Your task to perform on an android device: Open my contact list Image 0: 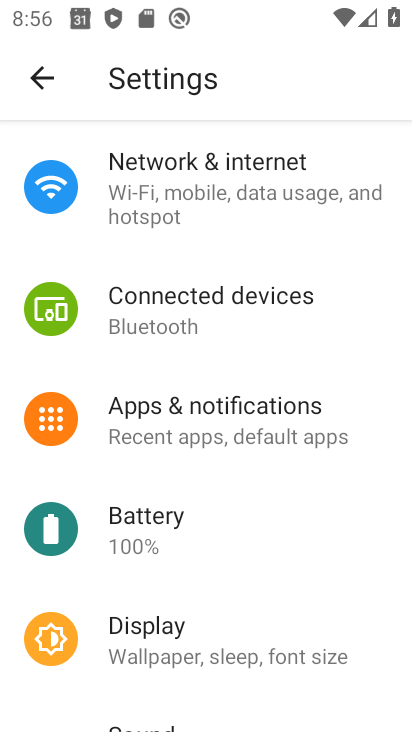
Step 0: press back button
Your task to perform on an android device: Open my contact list Image 1: 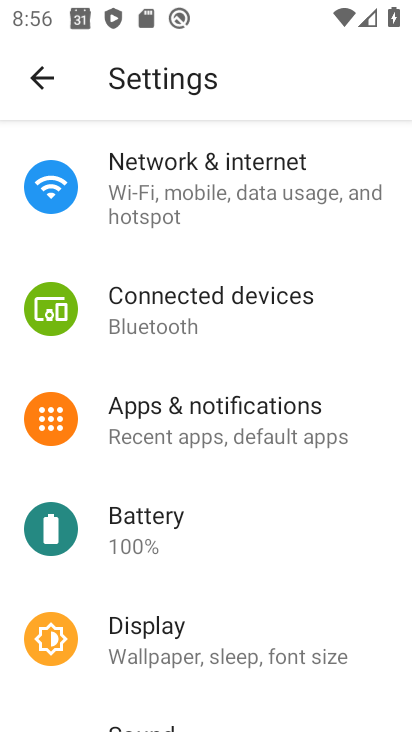
Step 1: press back button
Your task to perform on an android device: Open my contact list Image 2: 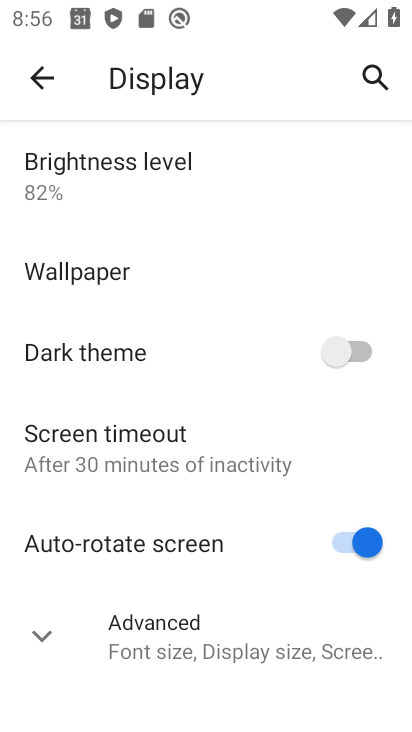
Step 2: press back button
Your task to perform on an android device: Open my contact list Image 3: 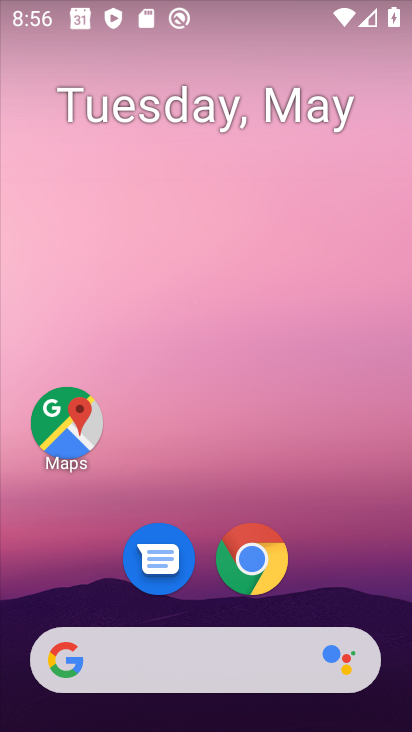
Step 3: drag from (352, 617) to (113, 92)
Your task to perform on an android device: Open my contact list Image 4: 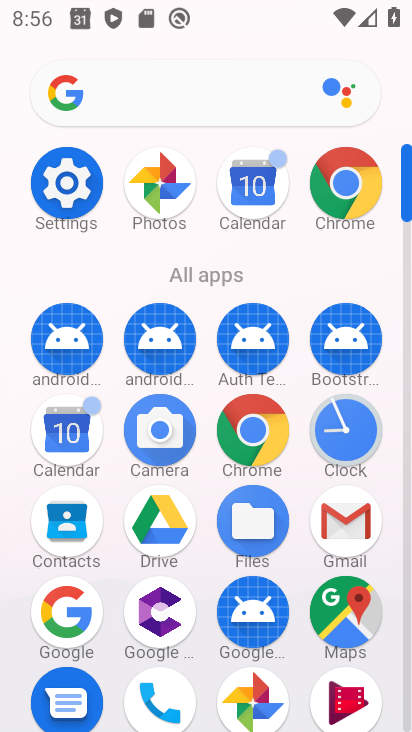
Step 4: click (68, 518)
Your task to perform on an android device: Open my contact list Image 5: 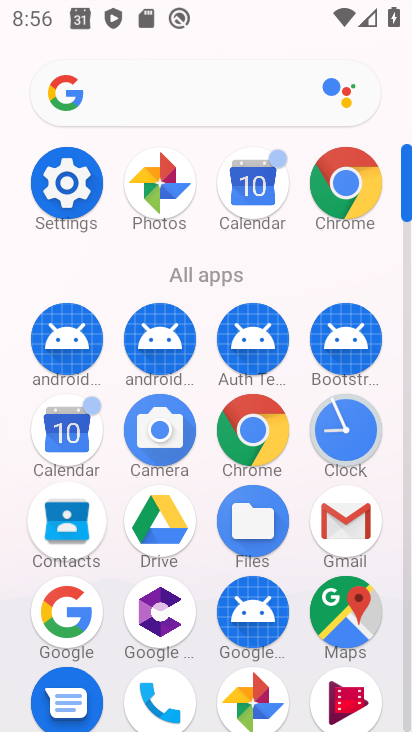
Step 5: click (68, 520)
Your task to perform on an android device: Open my contact list Image 6: 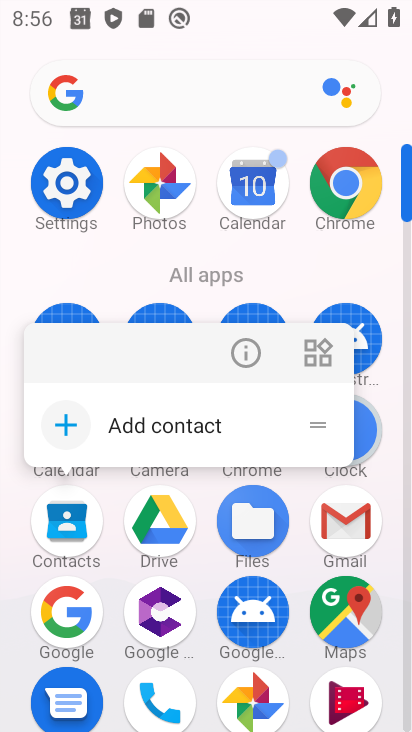
Step 6: click (61, 529)
Your task to perform on an android device: Open my contact list Image 7: 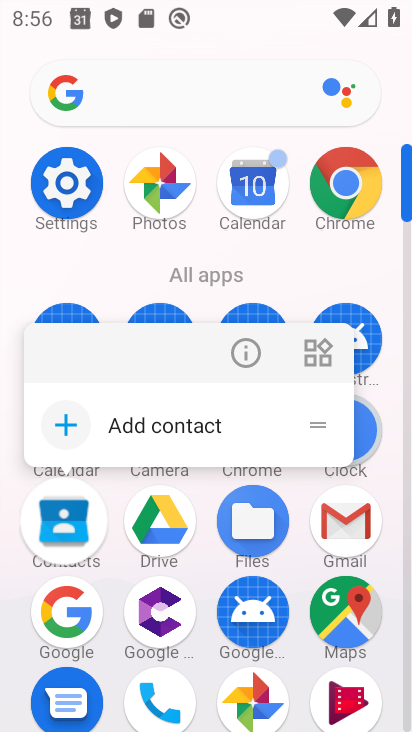
Step 7: click (62, 525)
Your task to perform on an android device: Open my contact list Image 8: 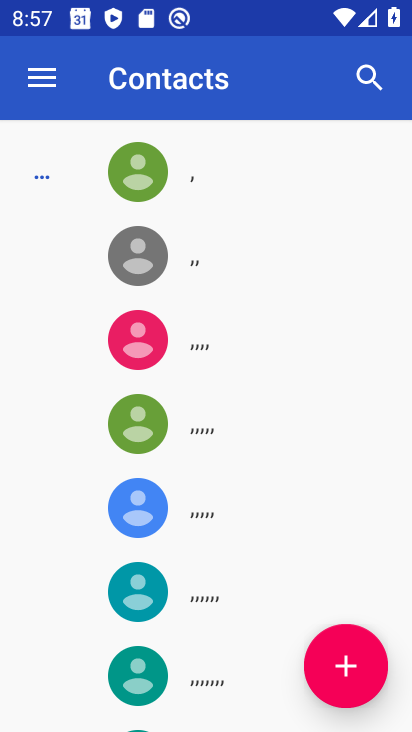
Step 8: task complete